Your task to perform on an android device: Open Yahoo.com Image 0: 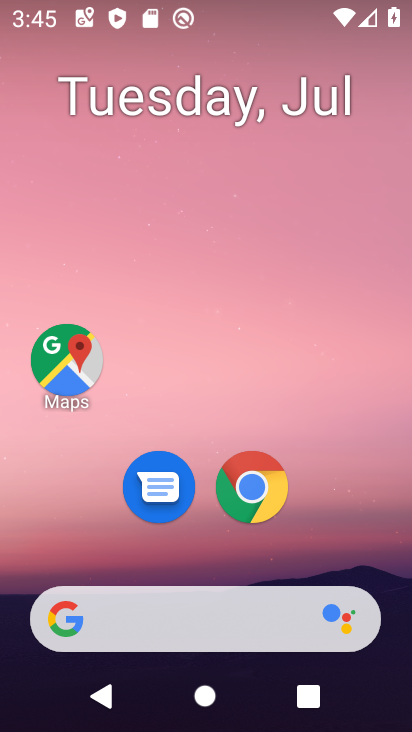
Step 0: click (253, 481)
Your task to perform on an android device: Open Yahoo.com Image 1: 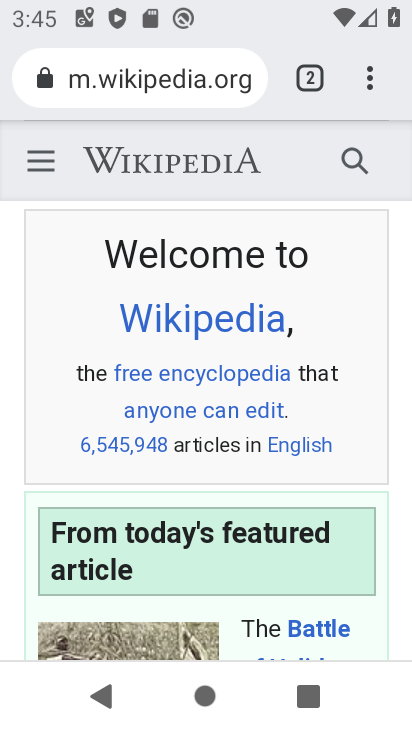
Step 1: click (306, 78)
Your task to perform on an android device: Open Yahoo.com Image 2: 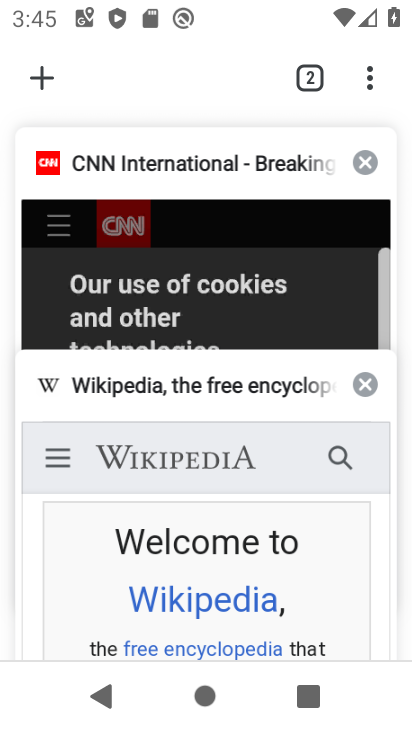
Step 2: click (27, 76)
Your task to perform on an android device: Open Yahoo.com Image 3: 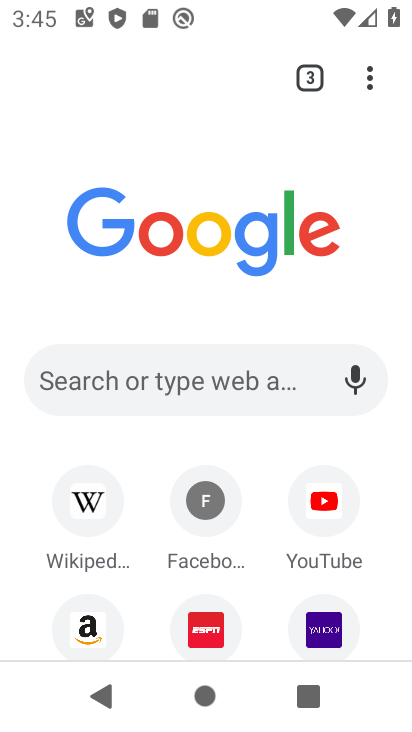
Step 3: click (313, 630)
Your task to perform on an android device: Open Yahoo.com Image 4: 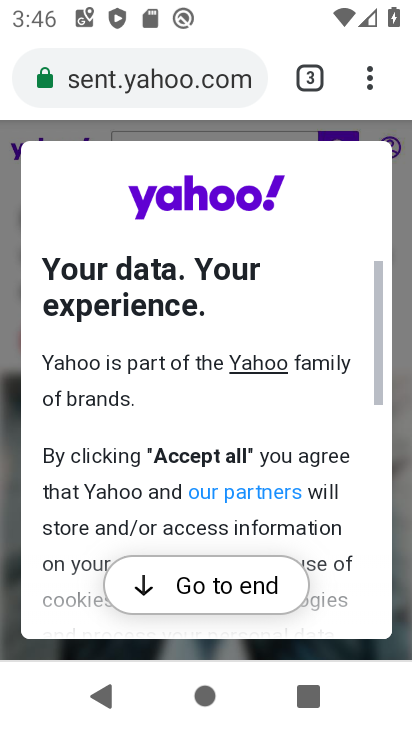
Step 4: task complete